Your task to perform on an android device: check google app version Image 0: 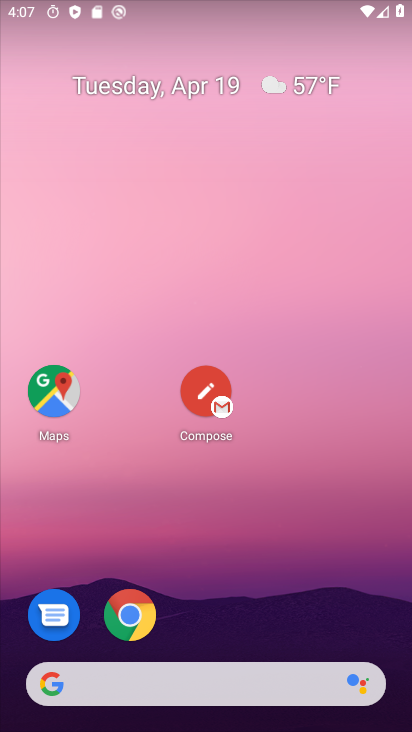
Step 0: drag from (254, 665) to (341, 84)
Your task to perform on an android device: check google app version Image 1: 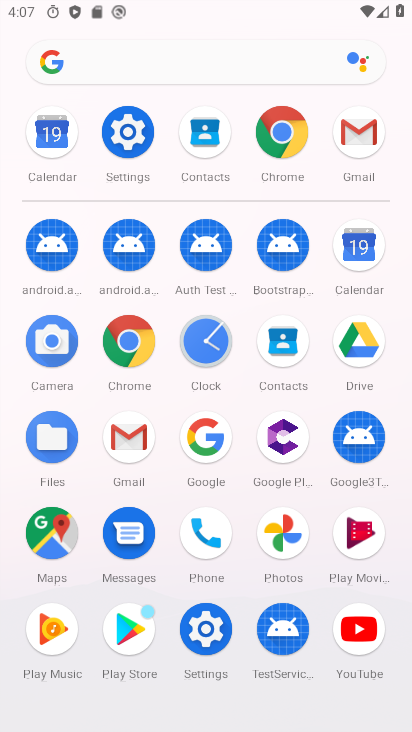
Step 1: click (209, 638)
Your task to perform on an android device: check google app version Image 2: 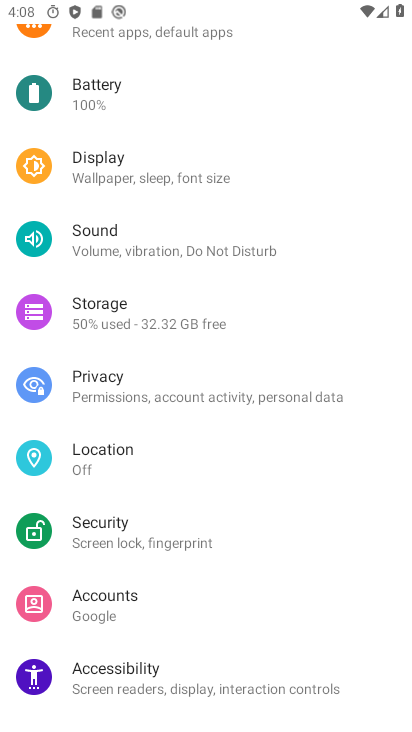
Step 2: drag from (252, 208) to (222, 707)
Your task to perform on an android device: check google app version Image 3: 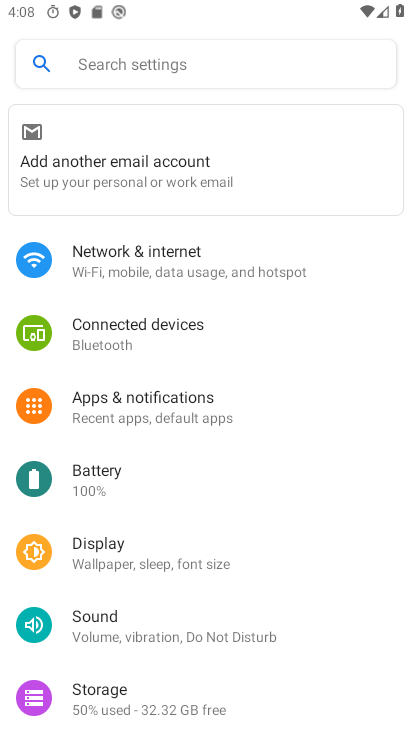
Step 3: drag from (231, 604) to (285, 62)
Your task to perform on an android device: check google app version Image 4: 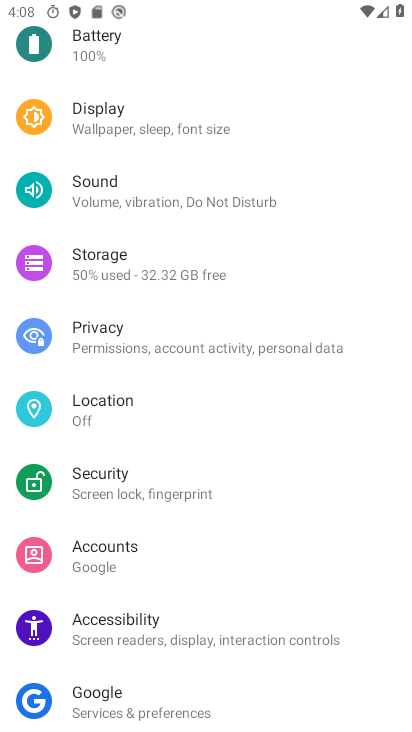
Step 4: drag from (260, 633) to (313, 72)
Your task to perform on an android device: check google app version Image 5: 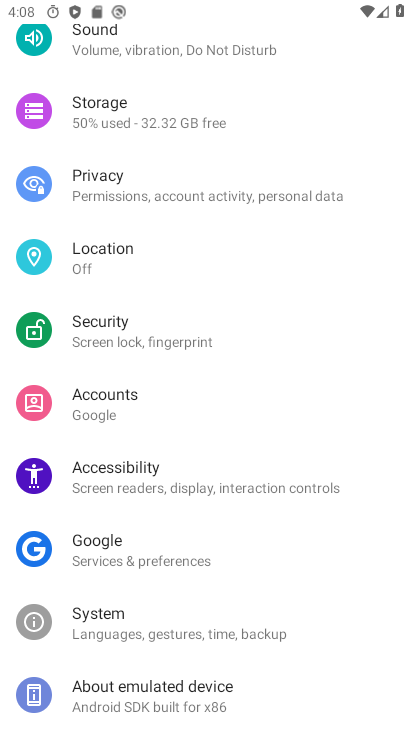
Step 5: press home button
Your task to perform on an android device: check google app version Image 6: 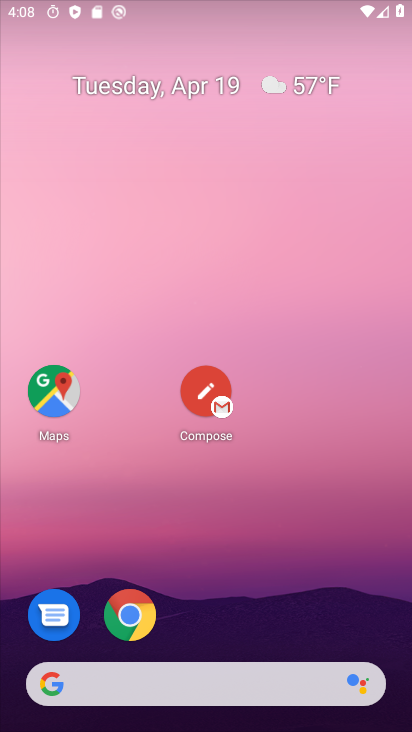
Step 6: drag from (250, 654) to (303, 93)
Your task to perform on an android device: check google app version Image 7: 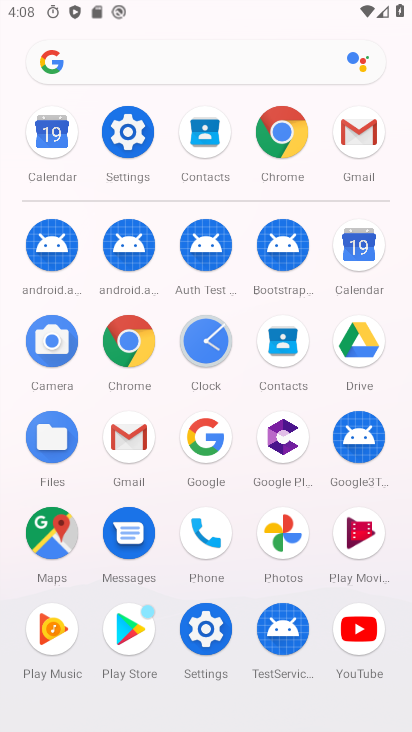
Step 7: click (129, 335)
Your task to perform on an android device: check google app version Image 8: 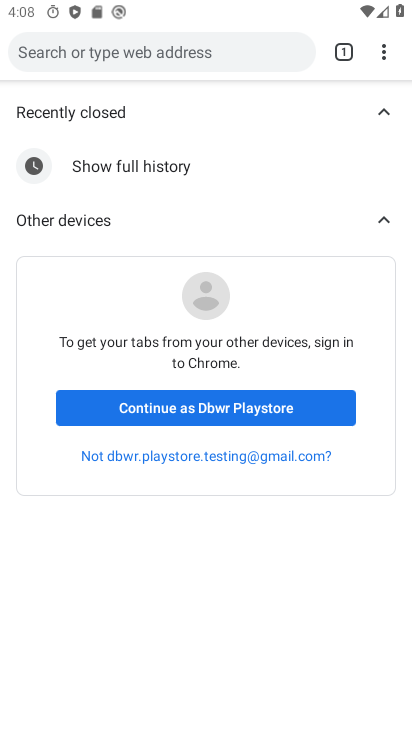
Step 8: click (385, 54)
Your task to perform on an android device: check google app version Image 9: 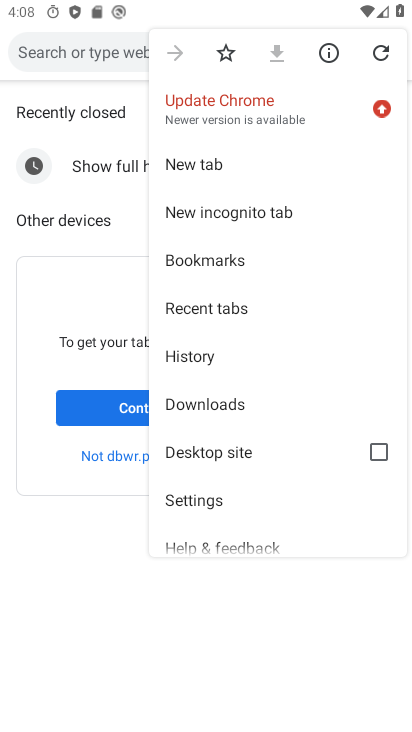
Step 9: click (257, 542)
Your task to perform on an android device: check google app version Image 10: 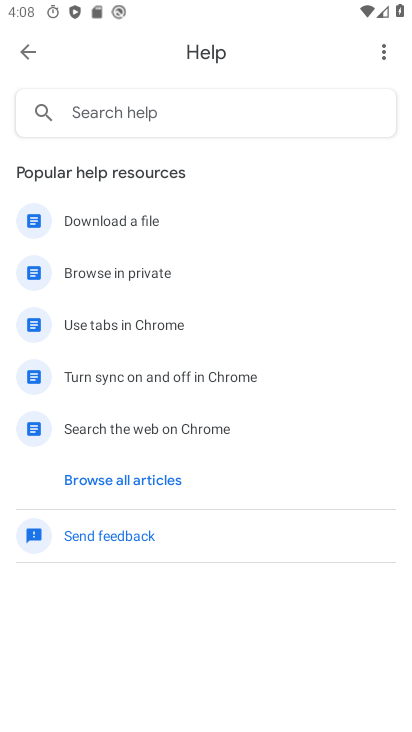
Step 10: click (390, 53)
Your task to perform on an android device: check google app version Image 11: 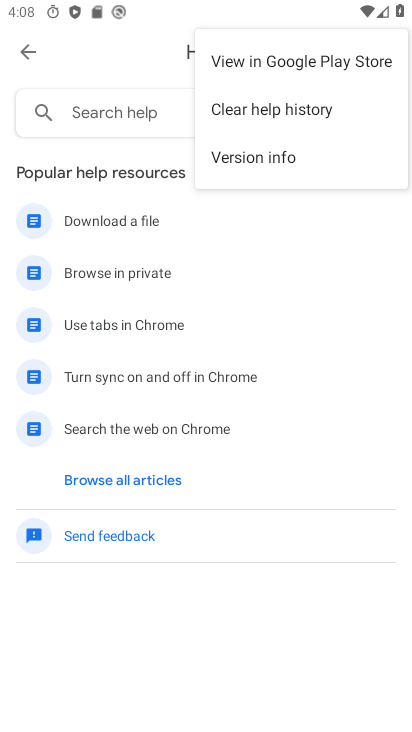
Step 11: click (303, 164)
Your task to perform on an android device: check google app version Image 12: 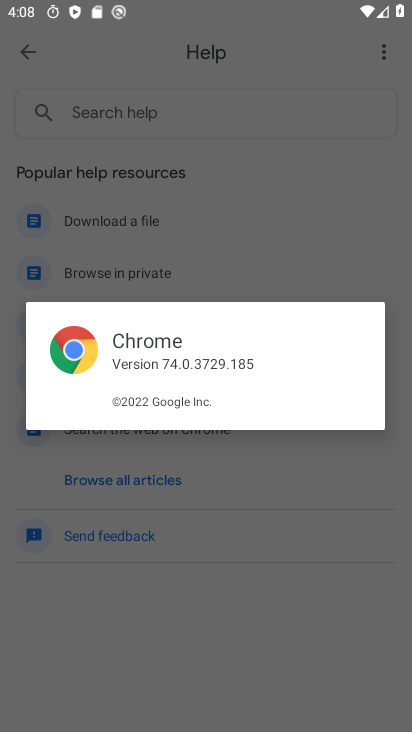
Step 12: task complete